Your task to perform on an android device: change alarm snooze length Image 0: 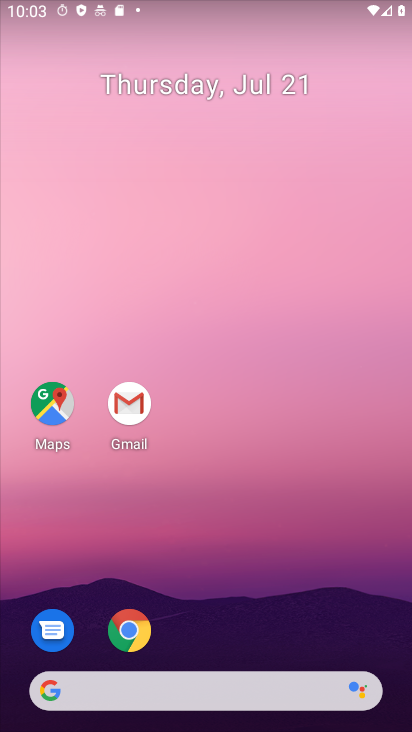
Step 0: drag from (245, 664) to (254, 126)
Your task to perform on an android device: change alarm snooze length Image 1: 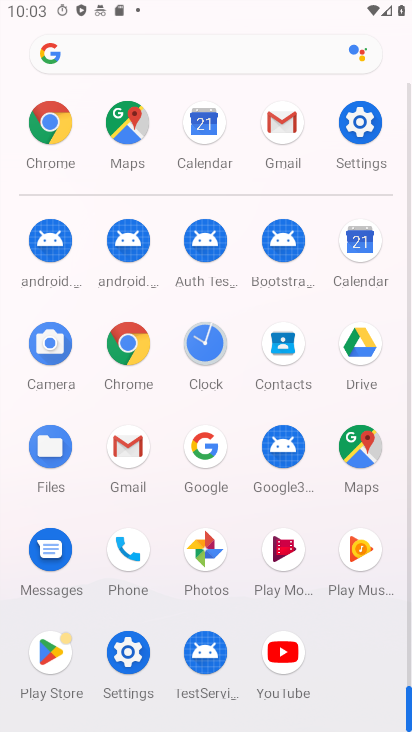
Step 1: drag from (333, 491) to (283, 164)
Your task to perform on an android device: change alarm snooze length Image 2: 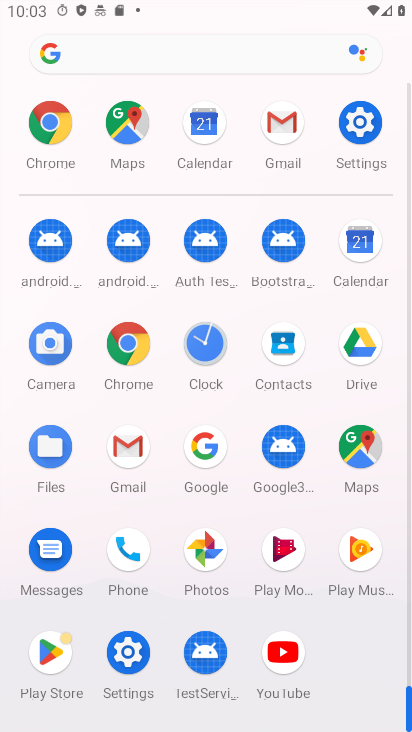
Step 2: click (210, 352)
Your task to perform on an android device: change alarm snooze length Image 3: 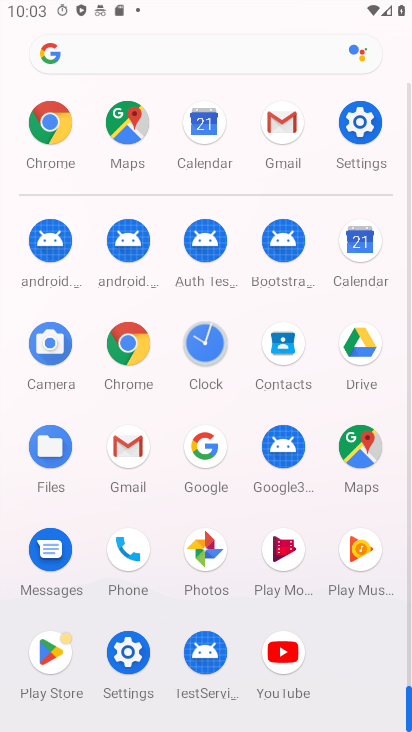
Step 3: click (210, 349)
Your task to perform on an android device: change alarm snooze length Image 4: 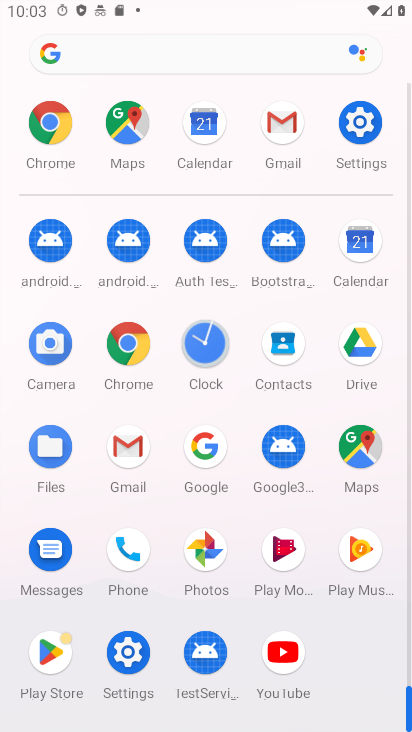
Step 4: click (211, 349)
Your task to perform on an android device: change alarm snooze length Image 5: 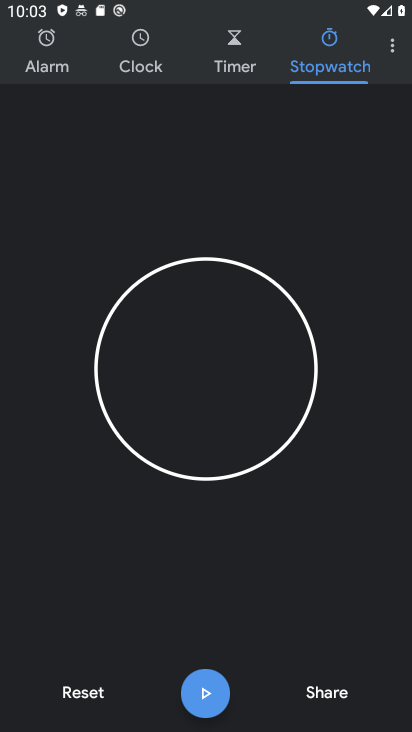
Step 5: click (386, 41)
Your task to perform on an android device: change alarm snooze length Image 6: 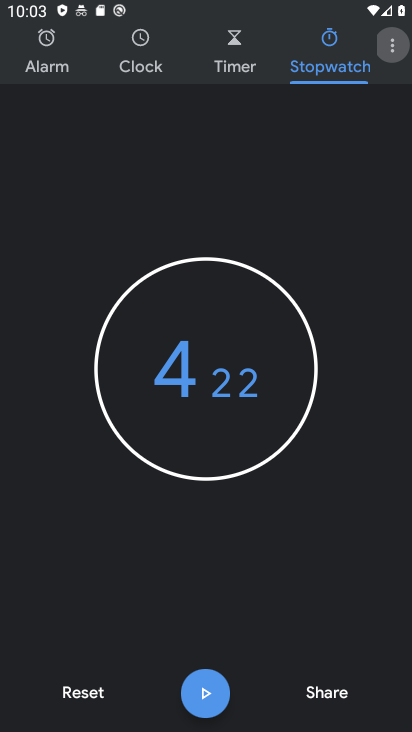
Step 6: click (386, 42)
Your task to perform on an android device: change alarm snooze length Image 7: 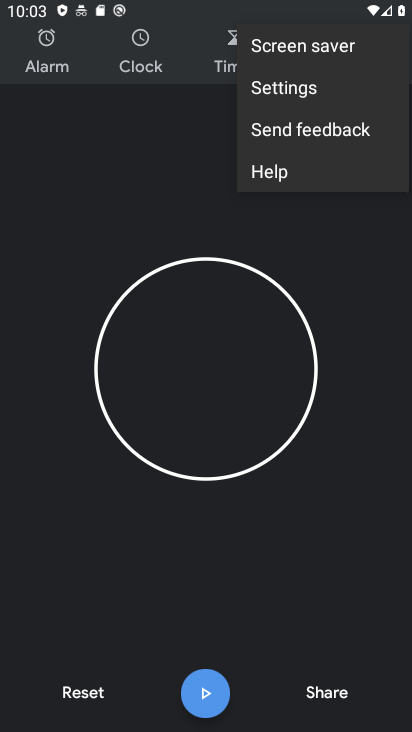
Step 7: click (273, 69)
Your task to perform on an android device: change alarm snooze length Image 8: 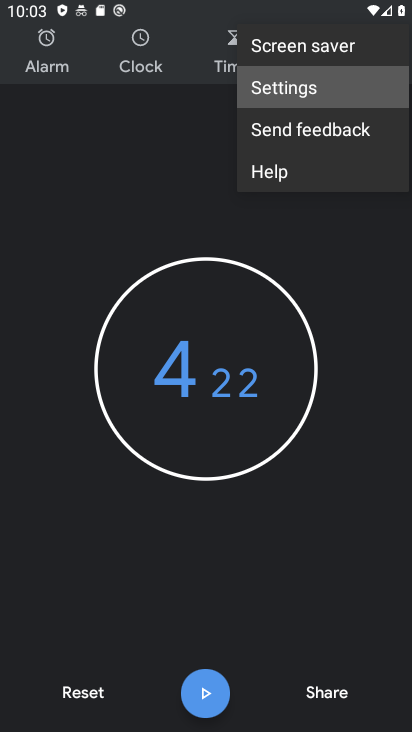
Step 8: click (274, 87)
Your task to perform on an android device: change alarm snooze length Image 9: 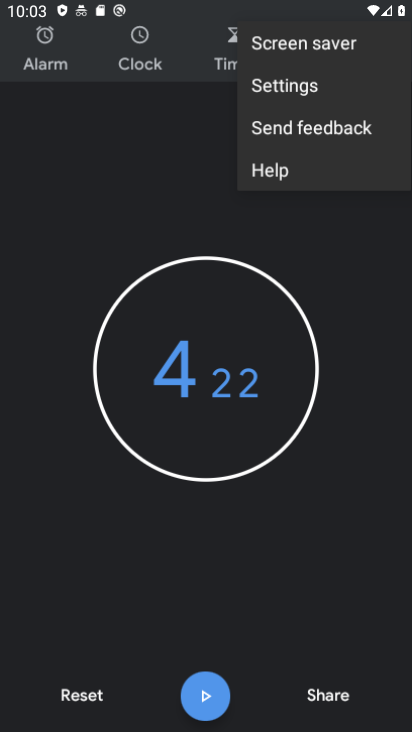
Step 9: click (278, 88)
Your task to perform on an android device: change alarm snooze length Image 10: 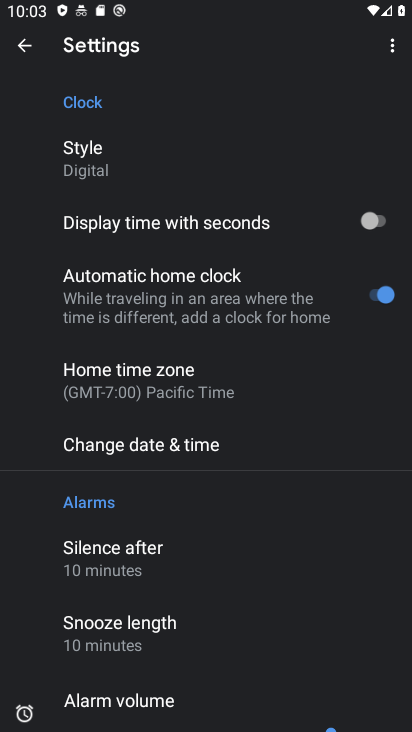
Step 10: click (117, 625)
Your task to perform on an android device: change alarm snooze length Image 11: 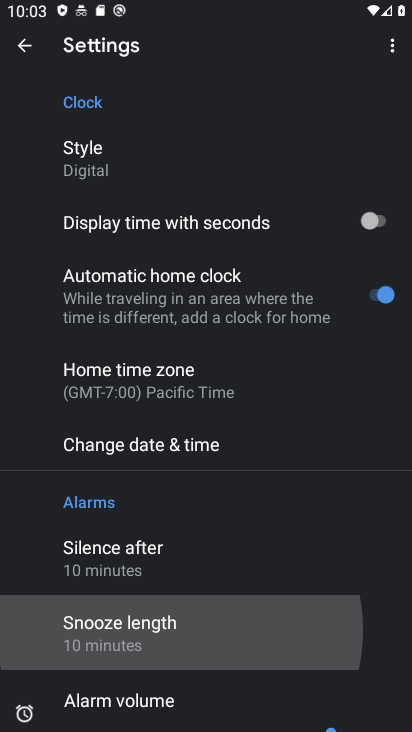
Step 11: click (114, 626)
Your task to perform on an android device: change alarm snooze length Image 12: 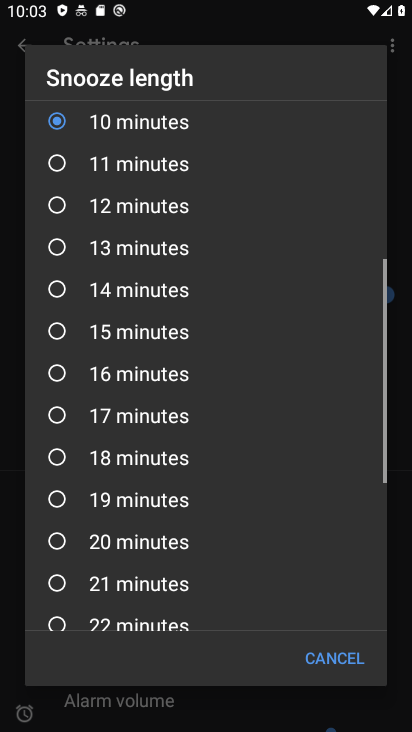
Step 12: click (63, 318)
Your task to perform on an android device: change alarm snooze length Image 13: 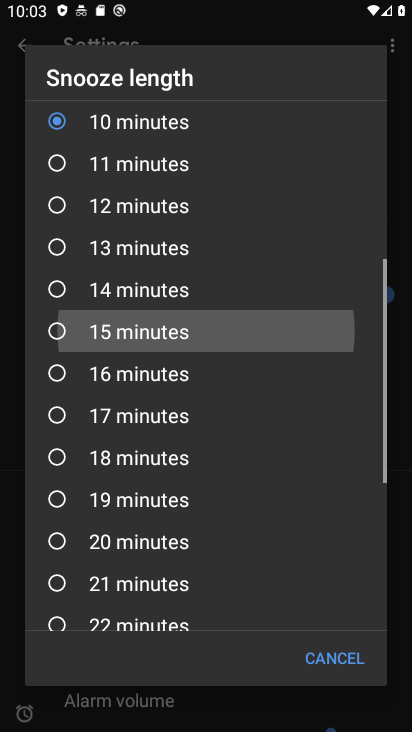
Step 13: click (61, 322)
Your task to perform on an android device: change alarm snooze length Image 14: 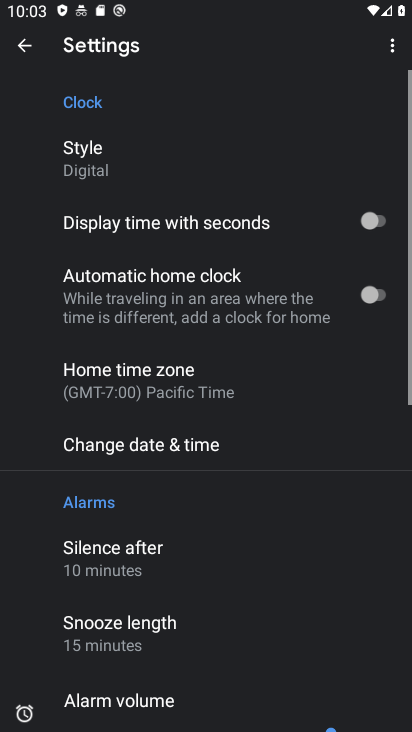
Step 14: task complete